Your task to perform on an android device: Clear all items from cart on target. Image 0: 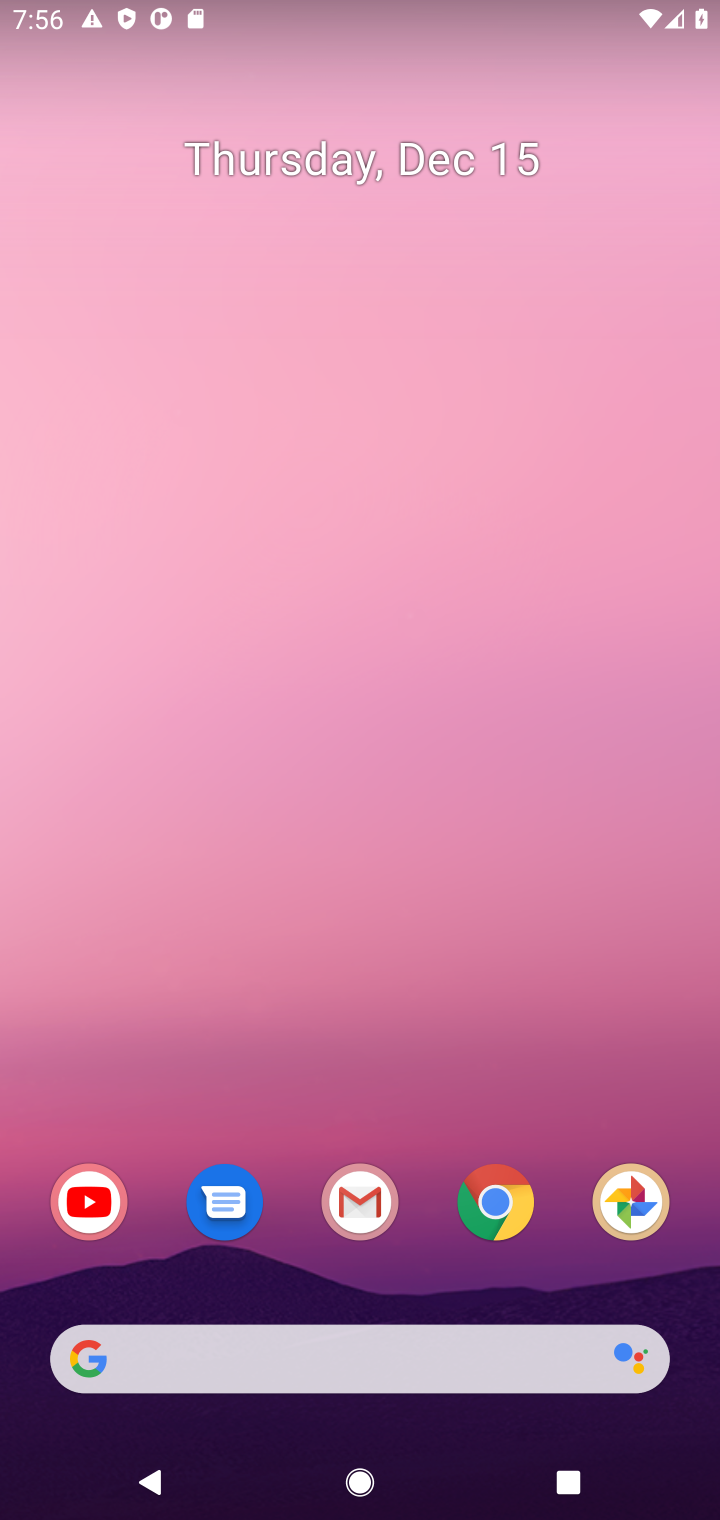
Step 0: click (515, 1215)
Your task to perform on an android device: Clear all items from cart on target. Image 1: 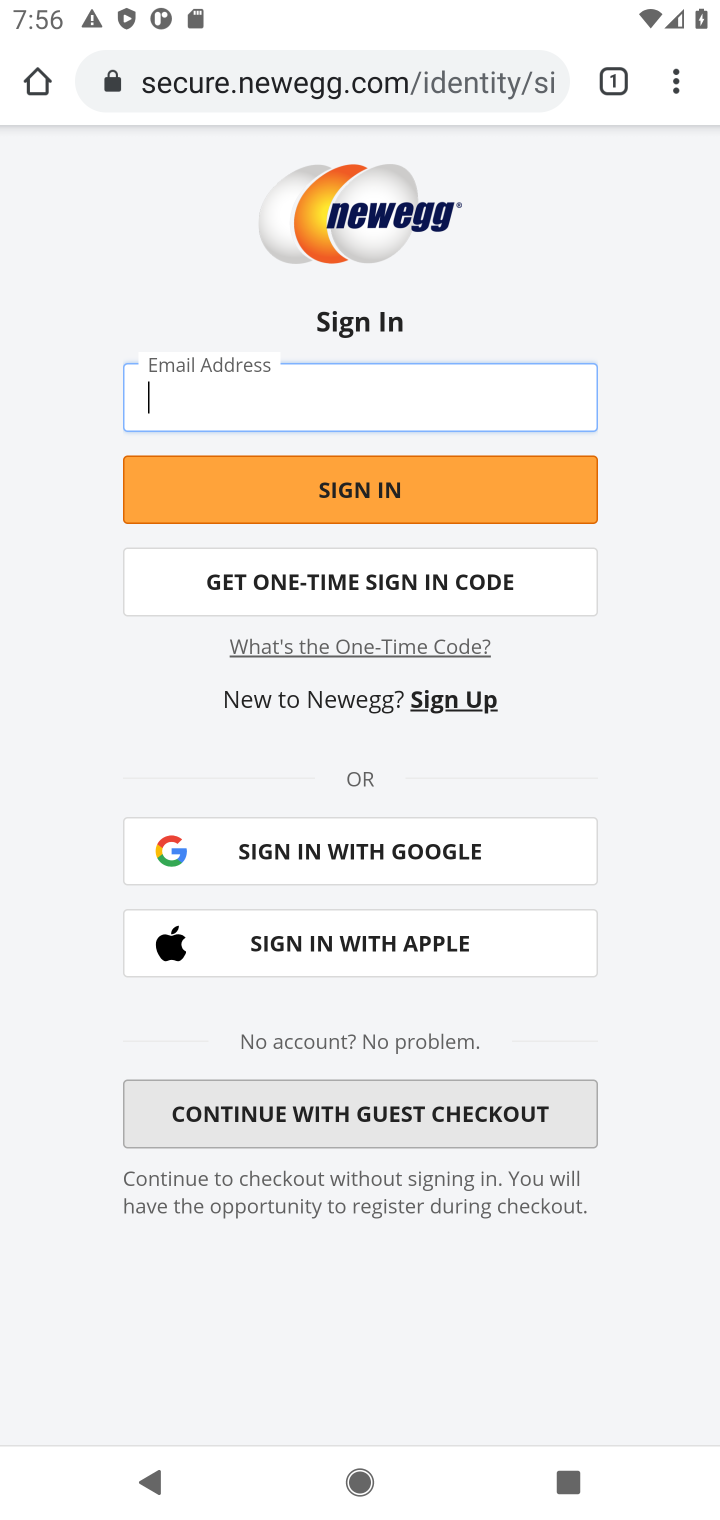
Step 1: click (236, 74)
Your task to perform on an android device: Clear all items from cart on target. Image 2: 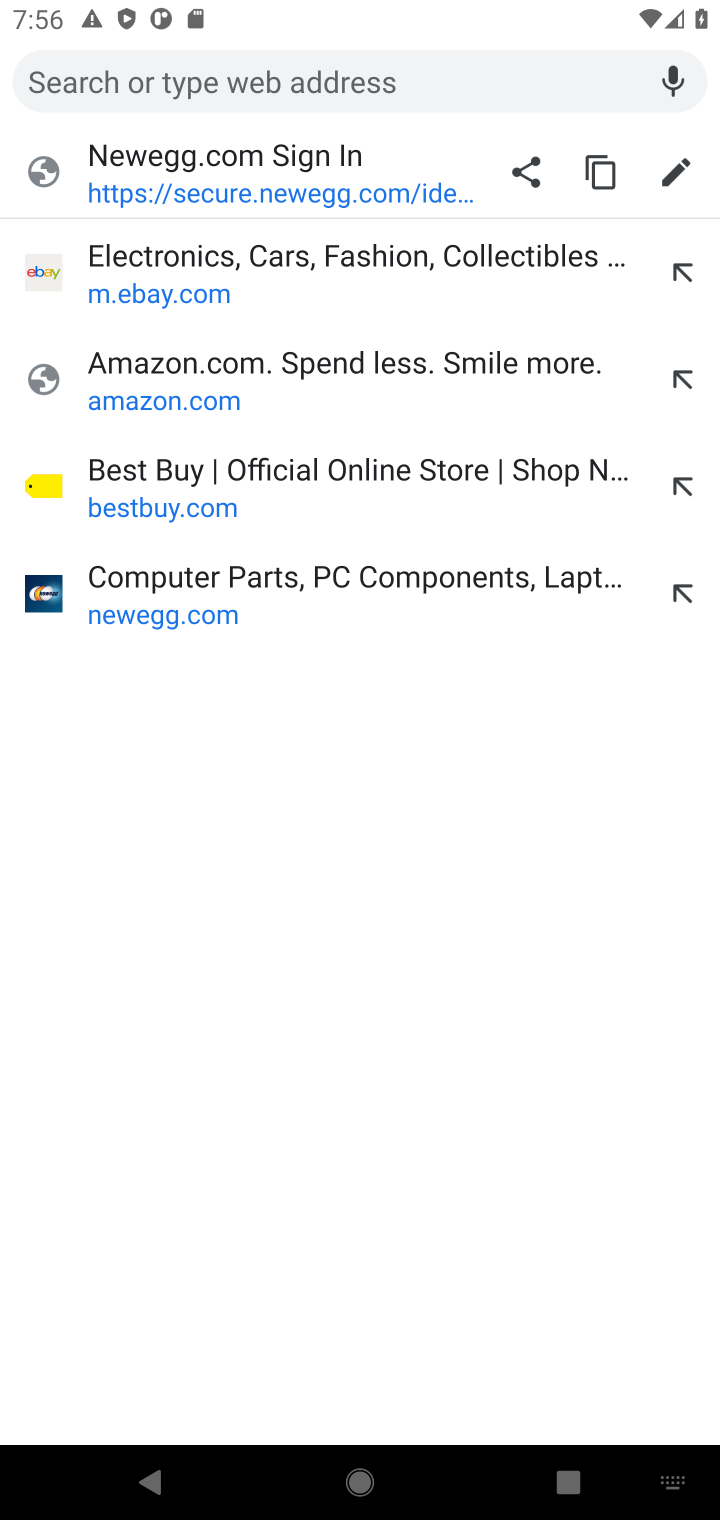
Step 2: type "target.com"
Your task to perform on an android device: Clear all items from cart on target. Image 3: 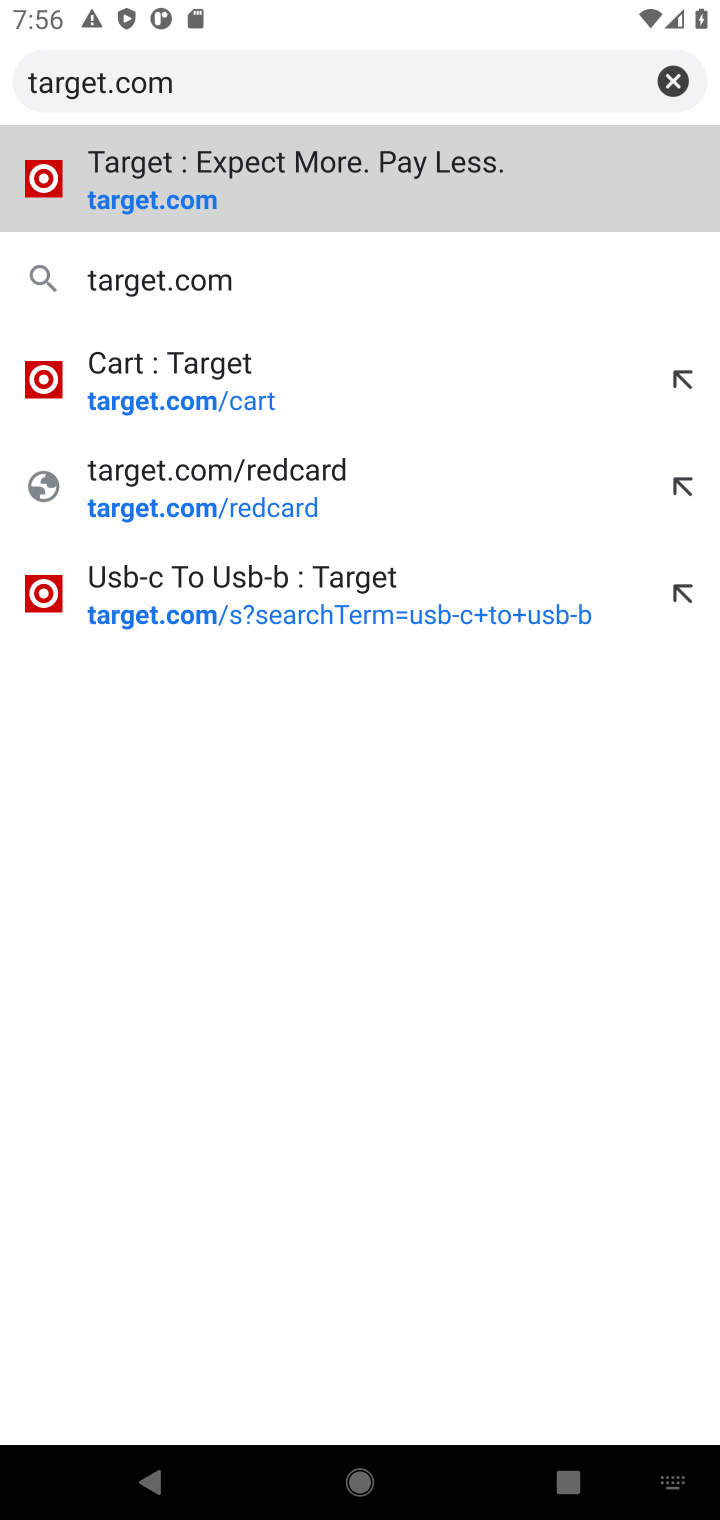
Step 3: click (191, 188)
Your task to perform on an android device: Clear all items from cart on target. Image 4: 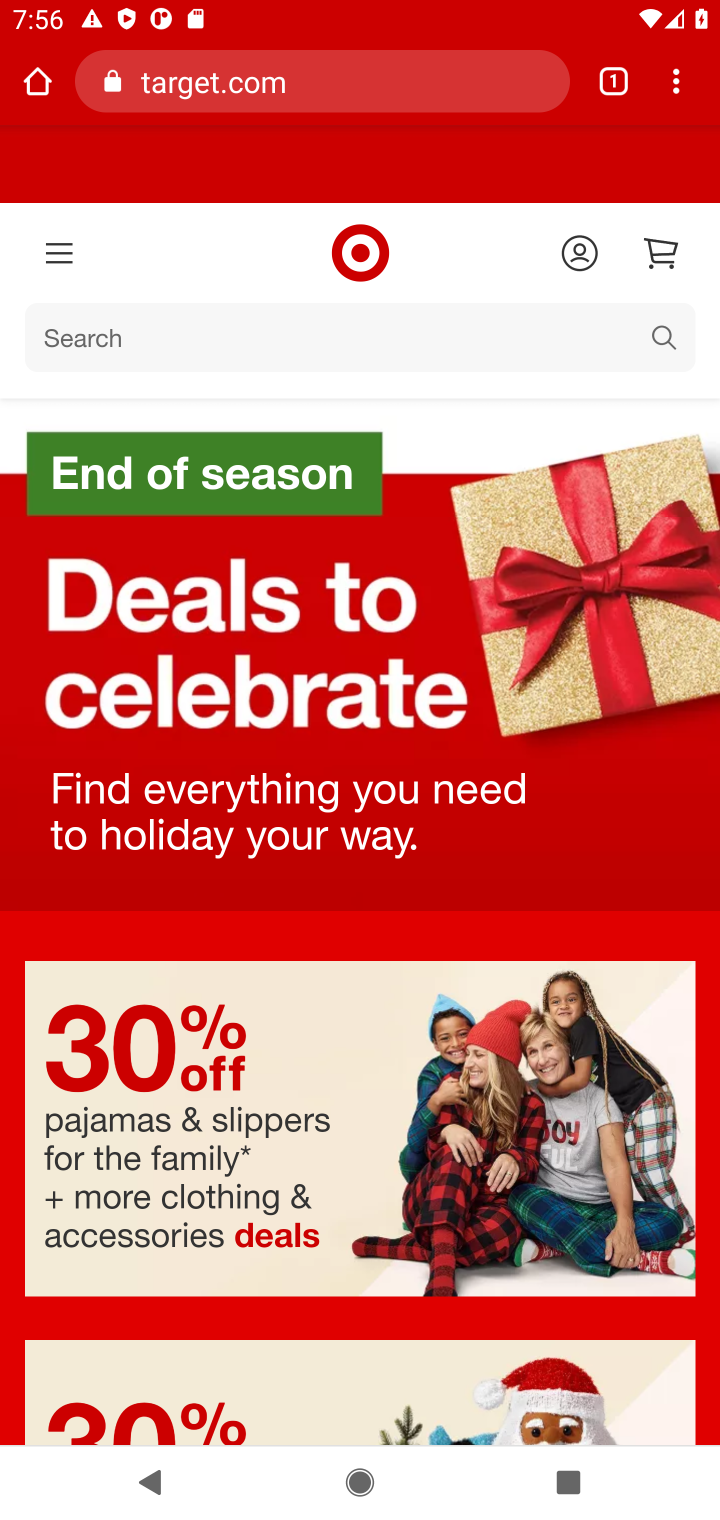
Step 4: click (665, 257)
Your task to perform on an android device: Clear all items from cart on target. Image 5: 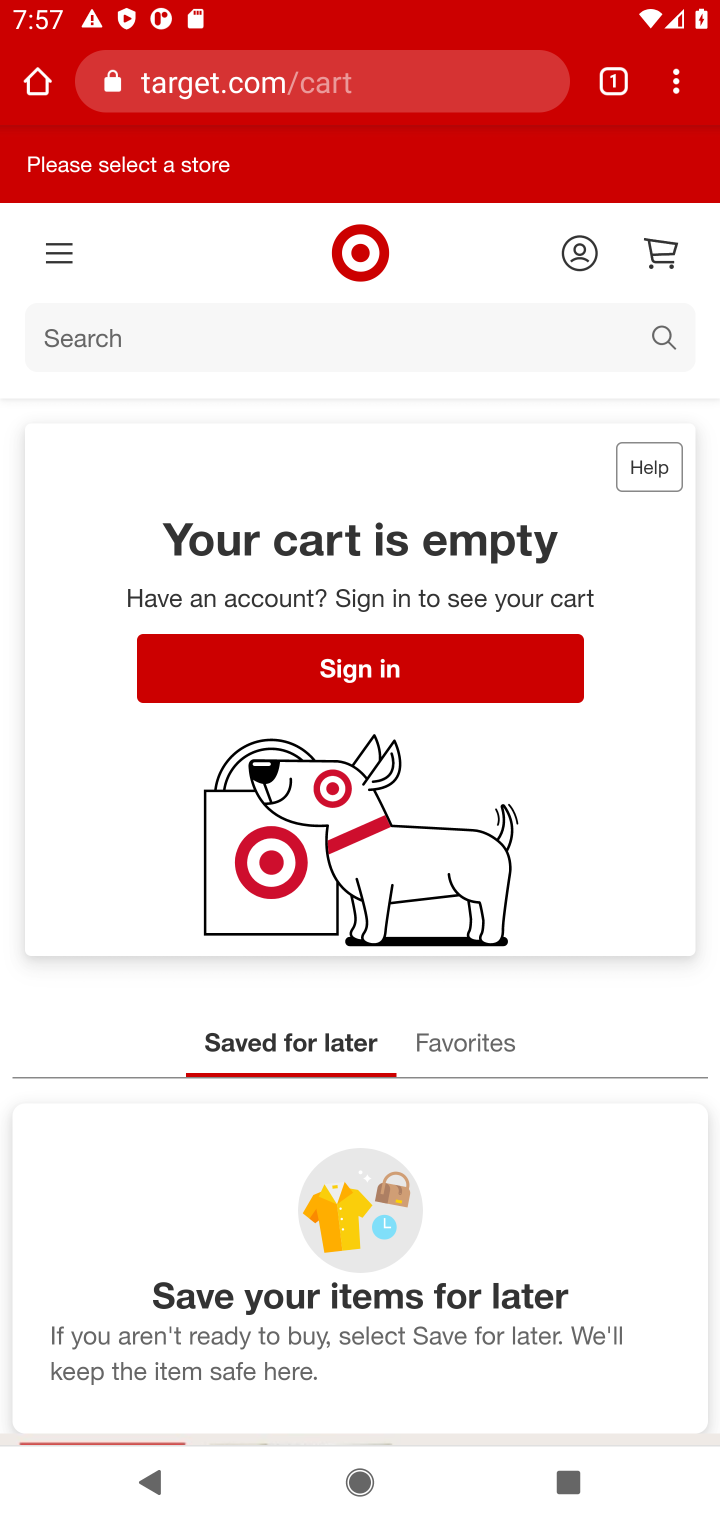
Step 5: task complete